Your task to perform on an android device: Show me productivity apps on the Play Store Image 0: 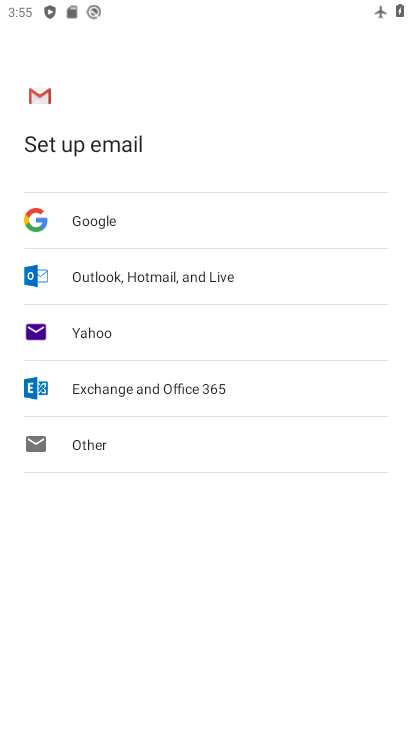
Step 0: press home button
Your task to perform on an android device: Show me productivity apps on the Play Store Image 1: 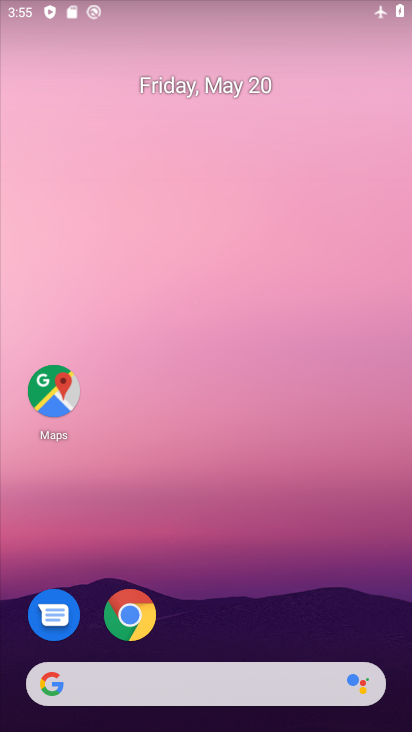
Step 1: drag from (215, 525) to (310, 21)
Your task to perform on an android device: Show me productivity apps on the Play Store Image 2: 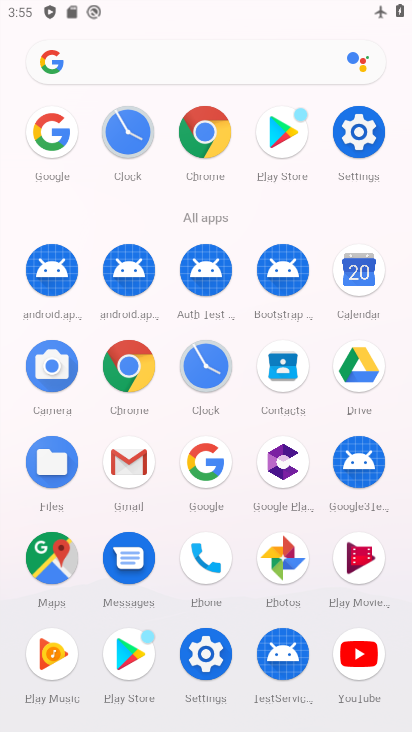
Step 2: click (133, 654)
Your task to perform on an android device: Show me productivity apps on the Play Store Image 3: 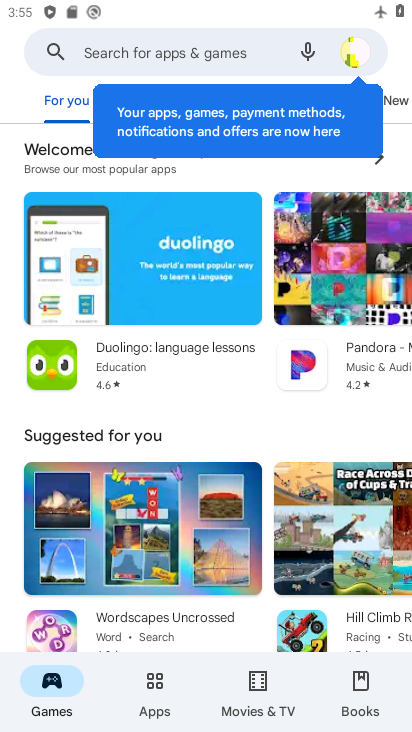
Step 3: click (226, 53)
Your task to perform on an android device: Show me productivity apps on the Play Store Image 4: 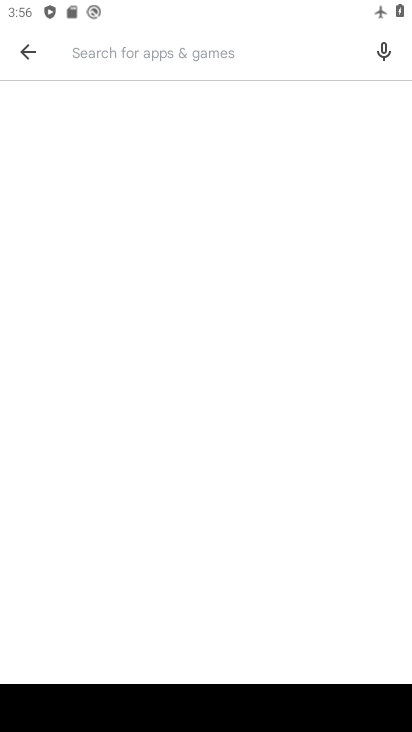
Step 4: type "productivity aaps"
Your task to perform on an android device: Show me productivity apps on the Play Store Image 5: 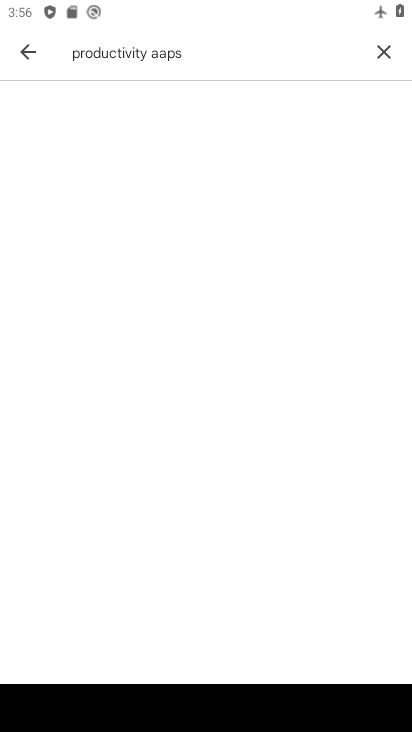
Step 5: task complete